Your task to perform on an android device: Open the calendar app, open the side menu, and click the "Day" option Image 0: 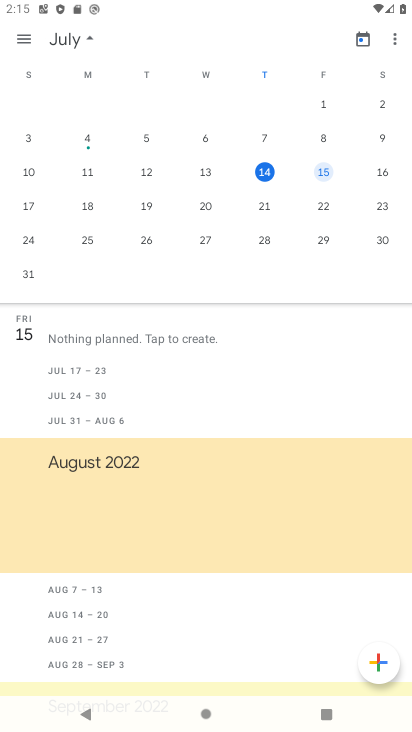
Step 0: press home button
Your task to perform on an android device: Open the calendar app, open the side menu, and click the "Day" option Image 1: 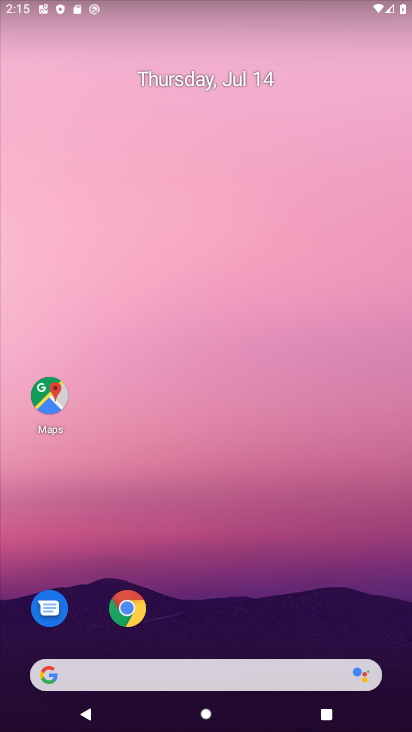
Step 1: drag from (48, 407) to (243, 68)
Your task to perform on an android device: Open the calendar app, open the side menu, and click the "Day" option Image 2: 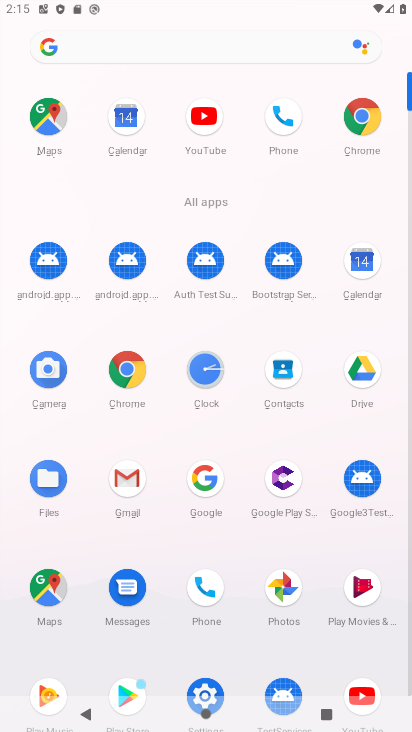
Step 2: click (349, 273)
Your task to perform on an android device: Open the calendar app, open the side menu, and click the "Day" option Image 3: 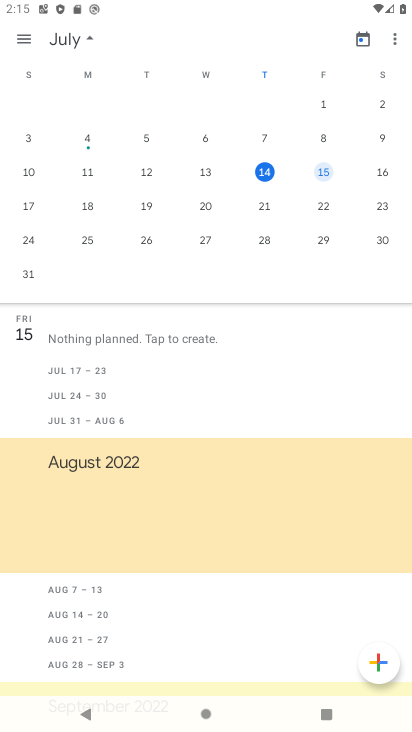
Step 3: click (21, 30)
Your task to perform on an android device: Open the calendar app, open the side menu, and click the "Day" option Image 4: 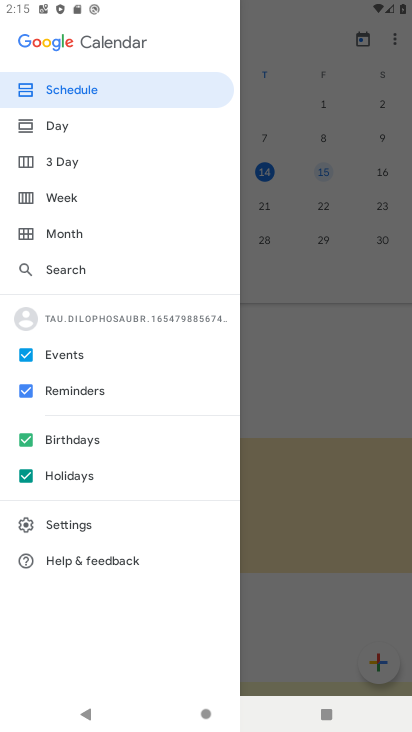
Step 4: click (107, 132)
Your task to perform on an android device: Open the calendar app, open the side menu, and click the "Day" option Image 5: 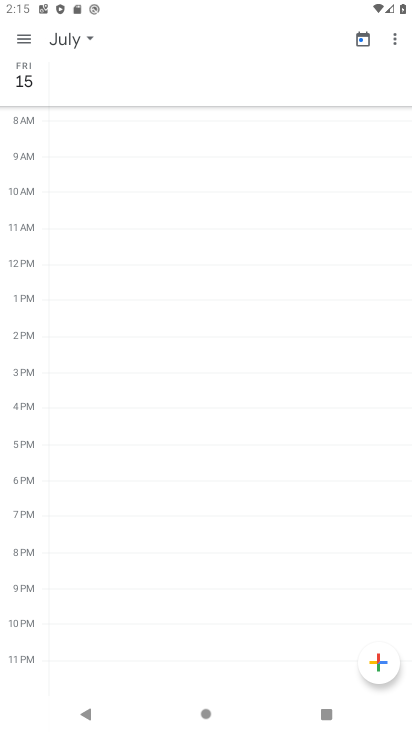
Step 5: task complete